Your task to perform on an android device: Check the news Image 0: 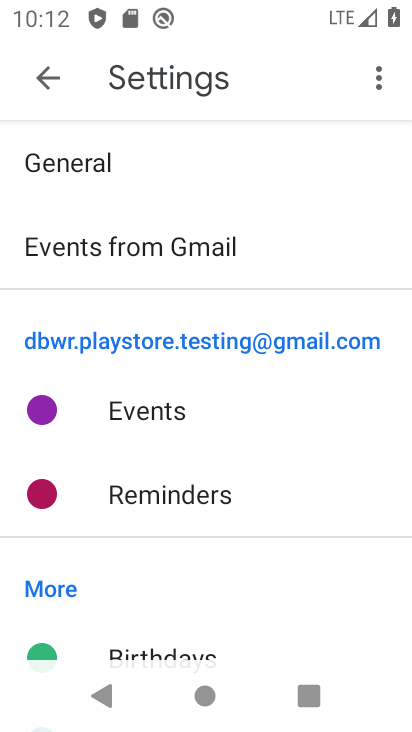
Step 0: press home button
Your task to perform on an android device: Check the news Image 1: 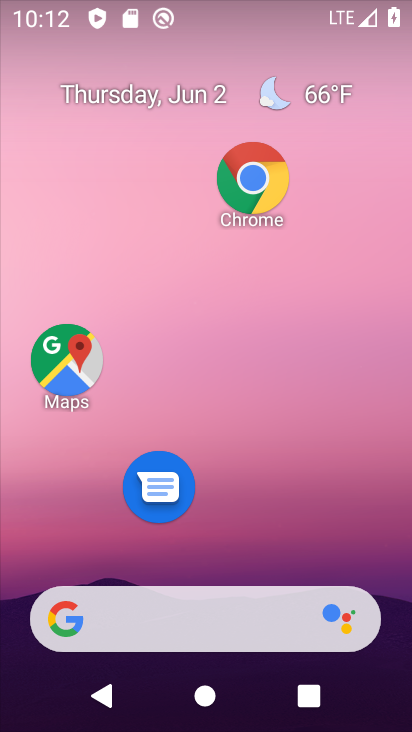
Step 1: task complete